Your task to perform on an android device: check storage Image 0: 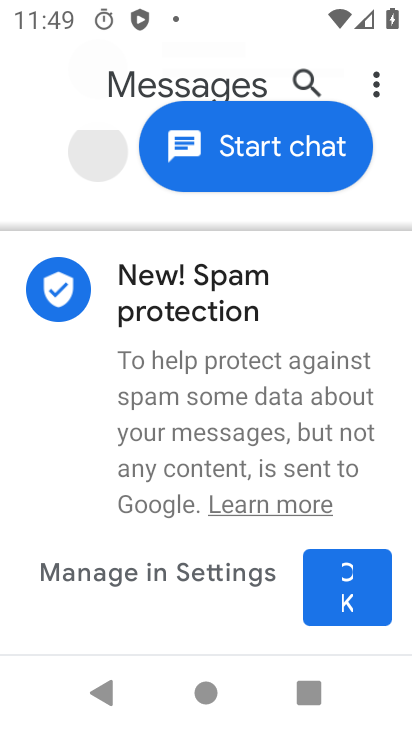
Step 0: press back button
Your task to perform on an android device: check storage Image 1: 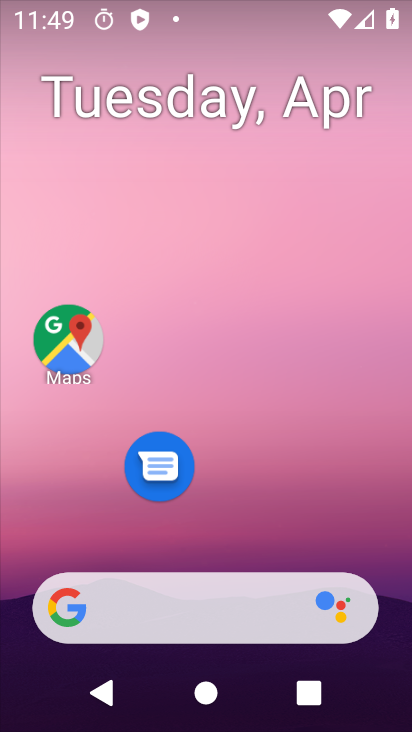
Step 1: click (341, 502)
Your task to perform on an android device: check storage Image 2: 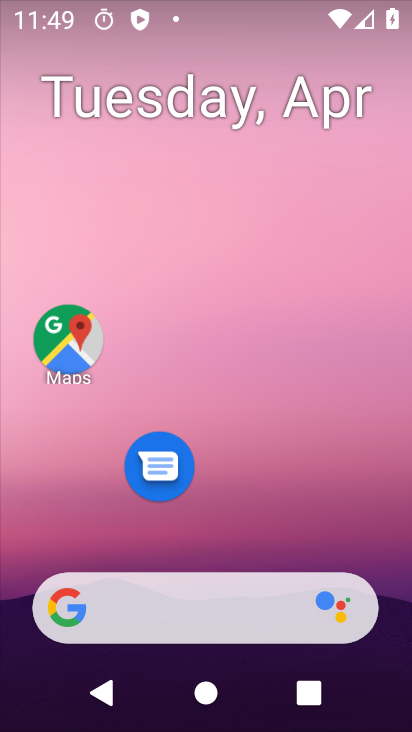
Step 2: drag from (231, 513) to (236, 179)
Your task to perform on an android device: check storage Image 3: 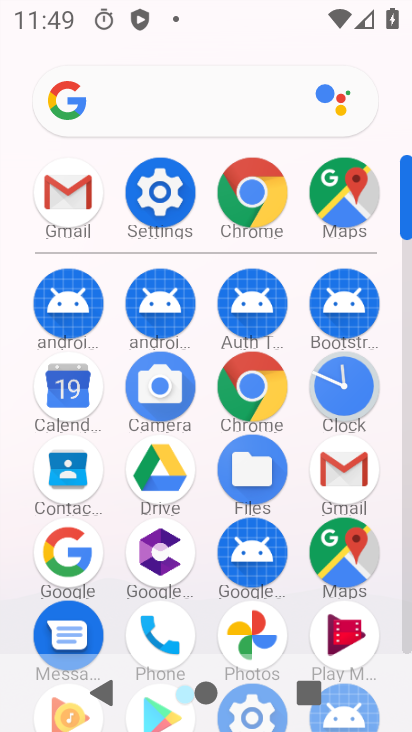
Step 3: click (181, 203)
Your task to perform on an android device: check storage Image 4: 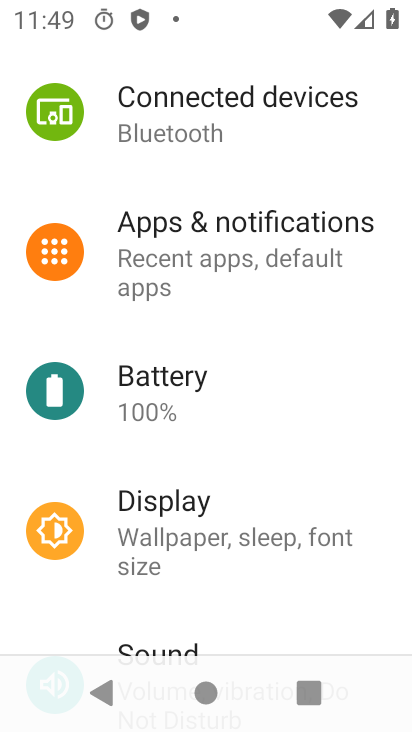
Step 4: drag from (195, 469) to (210, 333)
Your task to perform on an android device: check storage Image 5: 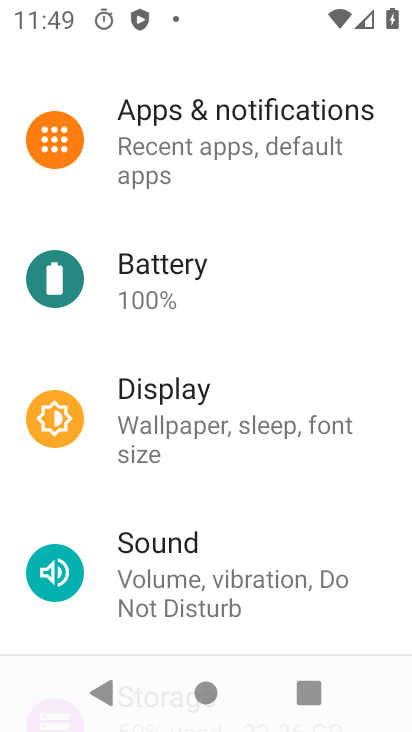
Step 5: drag from (188, 513) to (199, 294)
Your task to perform on an android device: check storage Image 6: 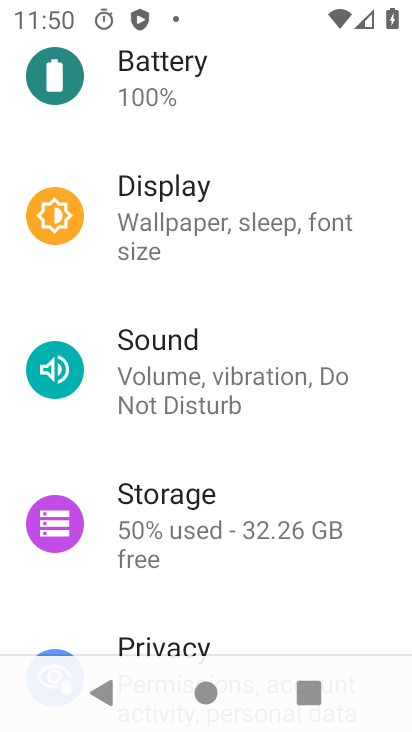
Step 6: click (190, 487)
Your task to perform on an android device: check storage Image 7: 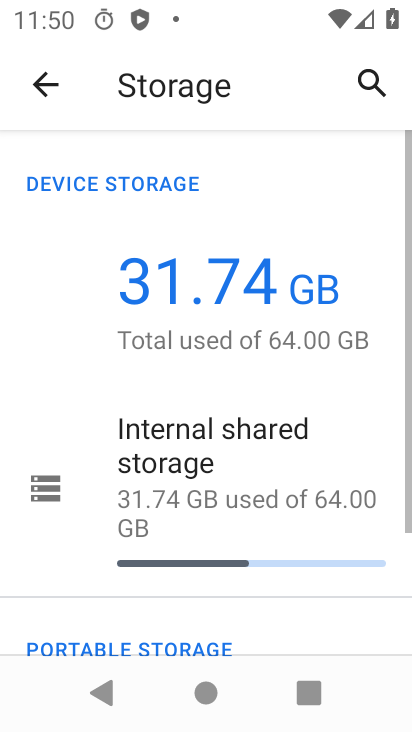
Step 7: task complete